Your task to perform on an android device: Open CNN.com Image 0: 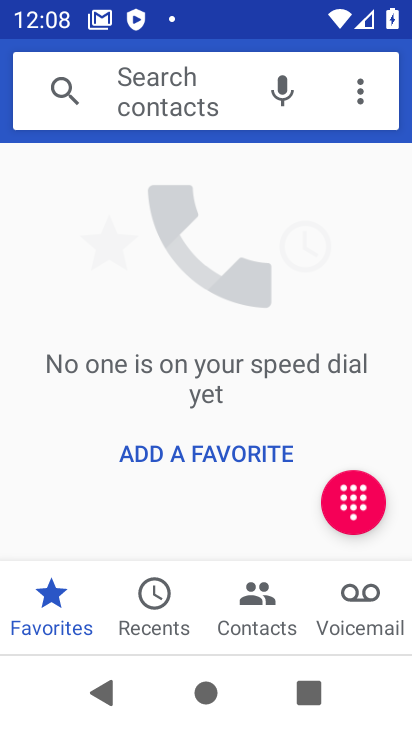
Step 0: press home button
Your task to perform on an android device: Open CNN.com Image 1: 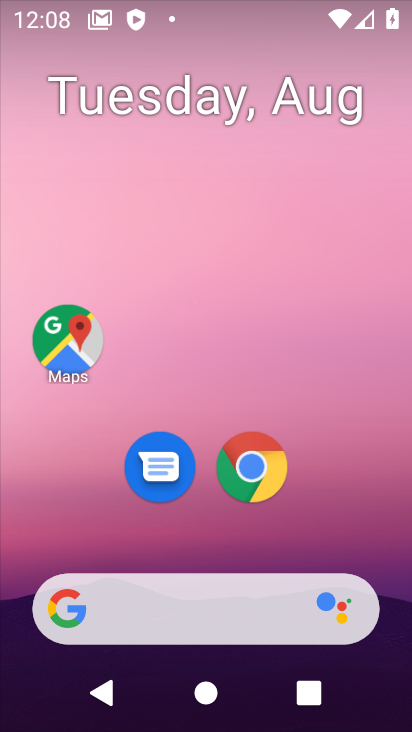
Step 1: drag from (347, 509) to (341, 113)
Your task to perform on an android device: Open CNN.com Image 2: 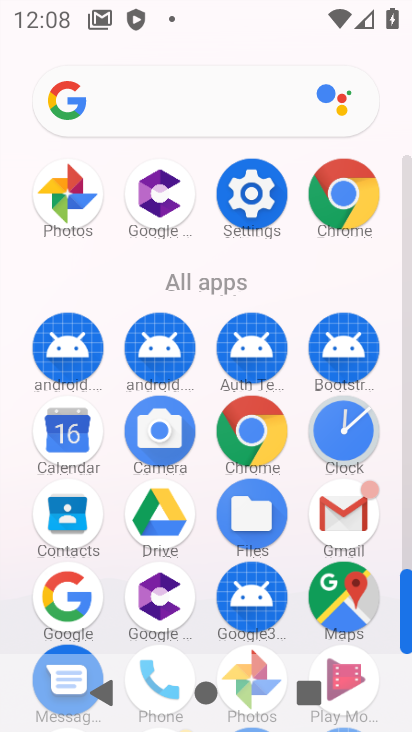
Step 2: click (356, 194)
Your task to perform on an android device: Open CNN.com Image 3: 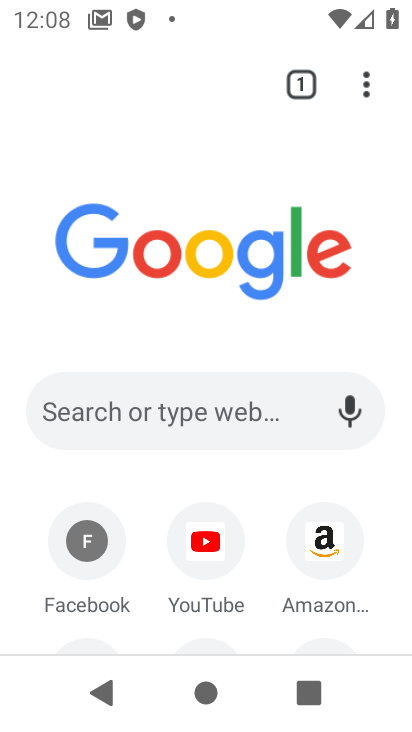
Step 3: click (237, 410)
Your task to perform on an android device: Open CNN.com Image 4: 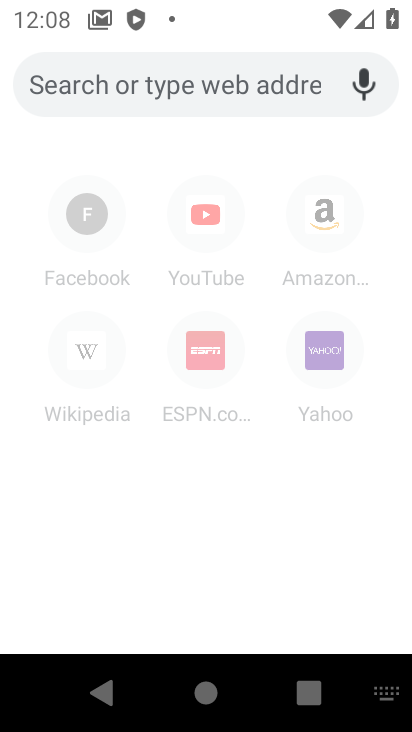
Step 4: type "cnn.com"
Your task to perform on an android device: Open CNN.com Image 5: 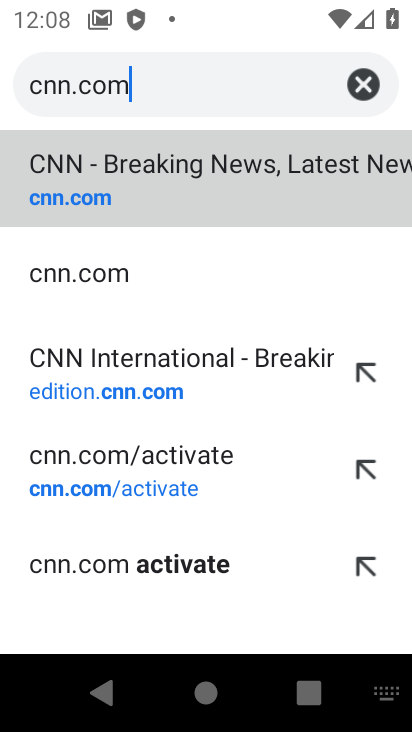
Step 5: click (161, 178)
Your task to perform on an android device: Open CNN.com Image 6: 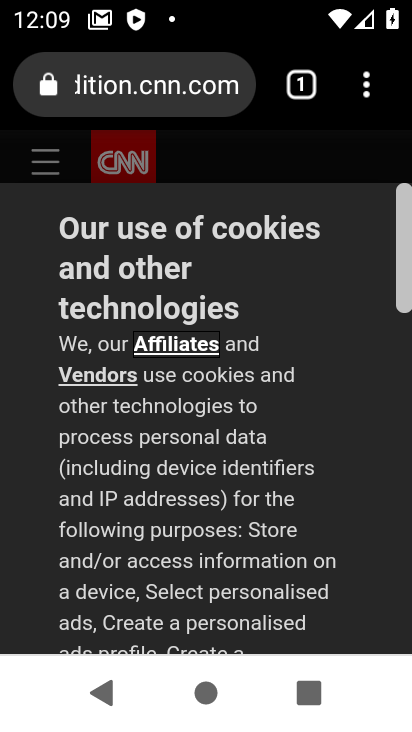
Step 6: task complete